Your task to perform on an android device: turn off location history Image 0: 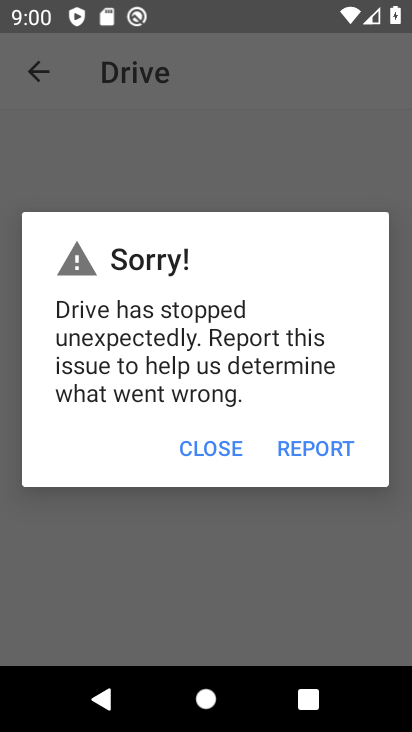
Step 0: press home button
Your task to perform on an android device: turn off location history Image 1: 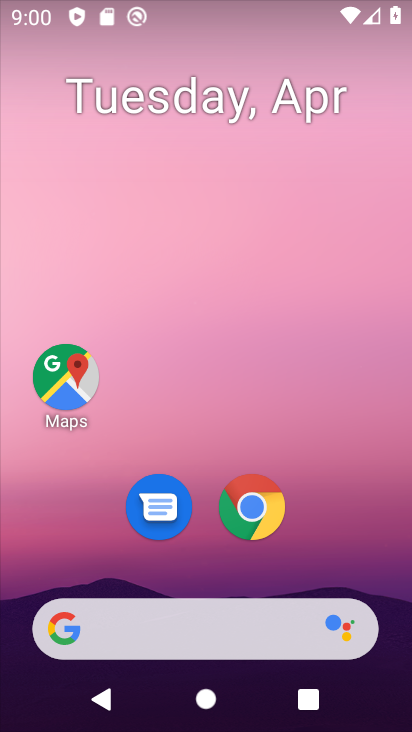
Step 1: drag from (371, 560) to (347, 197)
Your task to perform on an android device: turn off location history Image 2: 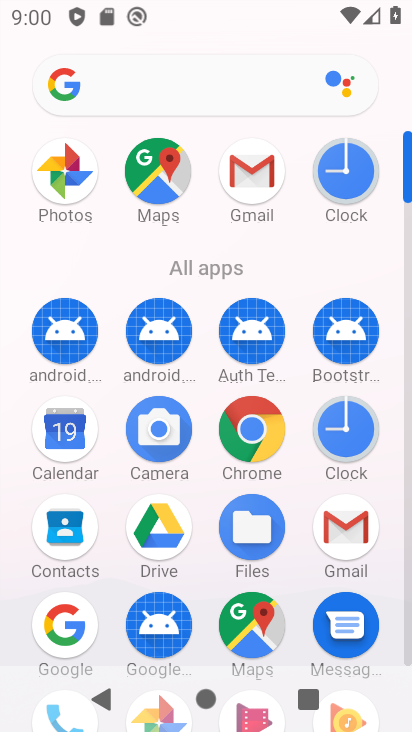
Step 2: drag from (209, 574) to (304, 229)
Your task to perform on an android device: turn off location history Image 3: 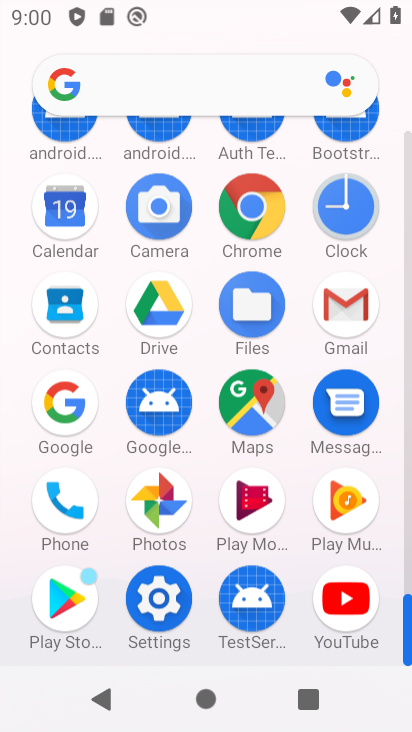
Step 3: click (161, 597)
Your task to perform on an android device: turn off location history Image 4: 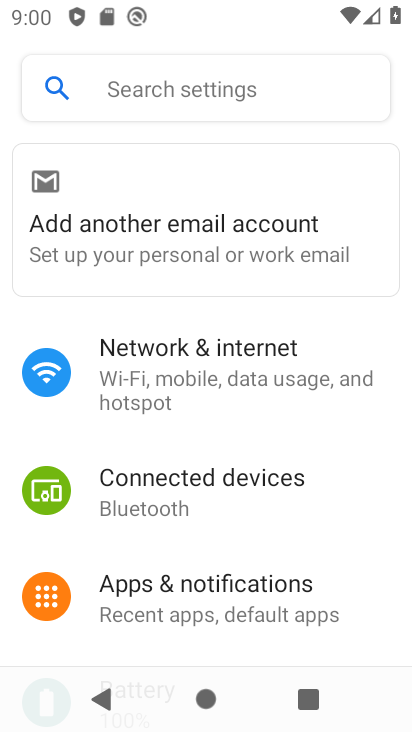
Step 4: drag from (274, 498) to (317, 156)
Your task to perform on an android device: turn off location history Image 5: 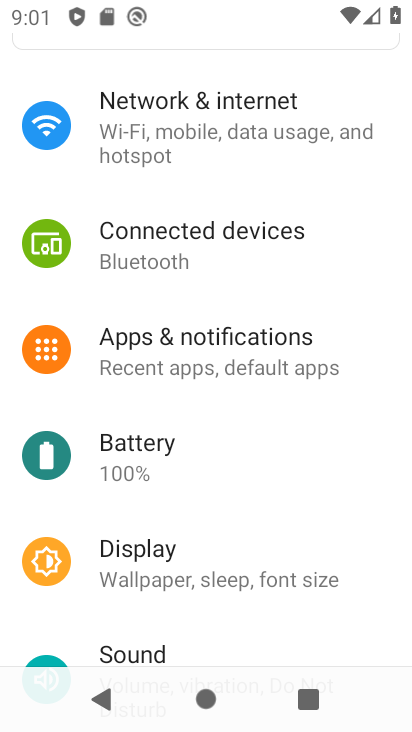
Step 5: drag from (237, 543) to (246, 161)
Your task to perform on an android device: turn off location history Image 6: 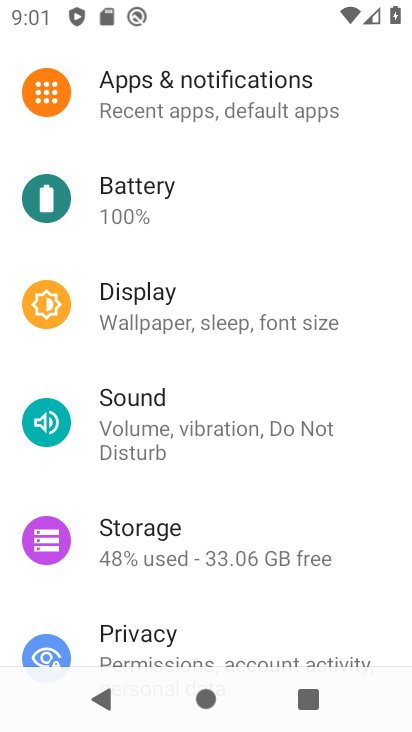
Step 6: drag from (221, 555) to (251, 201)
Your task to perform on an android device: turn off location history Image 7: 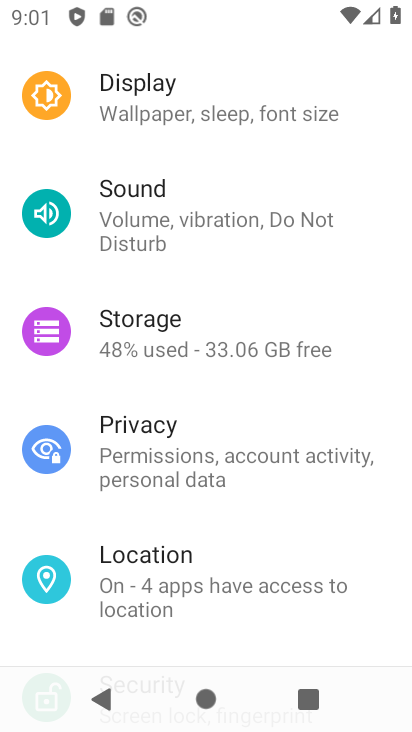
Step 7: click (174, 560)
Your task to perform on an android device: turn off location history Image 8: 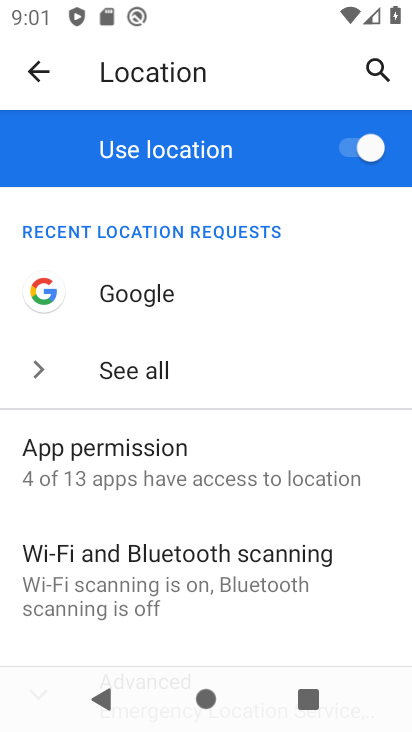
Step 8: drag from (226, 505) to (267, 129)
Your task to perform on an android device: turn off location history Image 9: 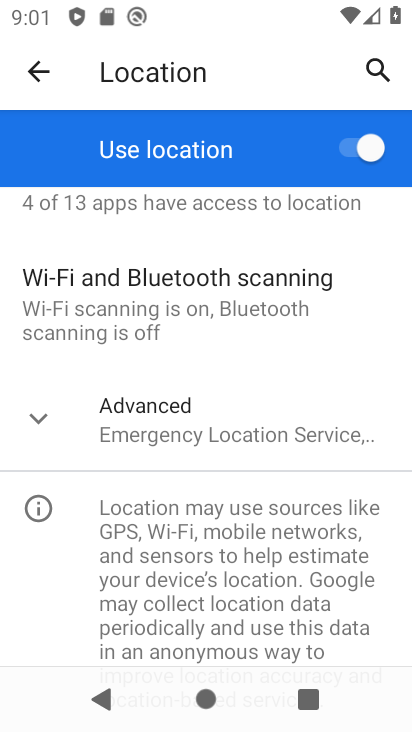
Step 9: click (145, 418)
Your task to perform on an android device: turn off location history Image 10: 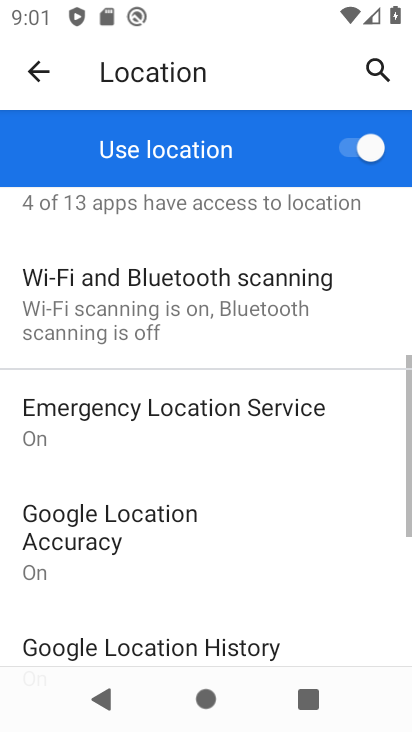
Step 10: drag from (311, 532) to (300, 276)
Your task to perform on an android device: turn off location history Image 11: 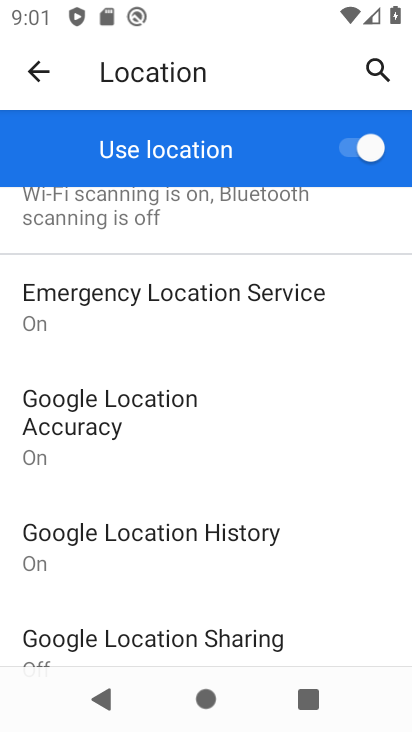
Step 11: click (69, 546)
Your task to perform on an android device: turn off location history Image 12: 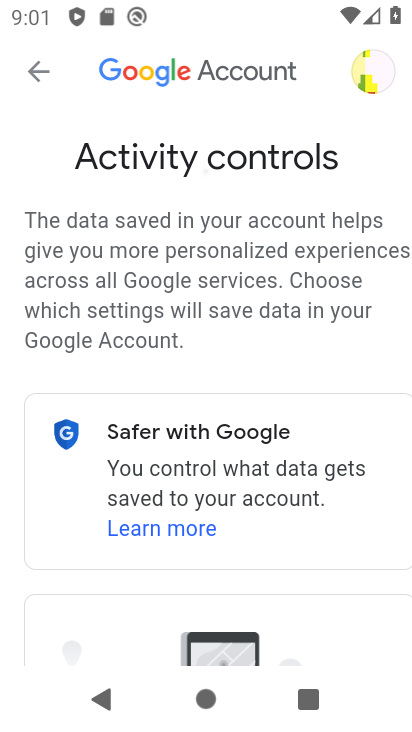
Step 12: task complete